Your task to perform on an android device: Open the map Image 0: 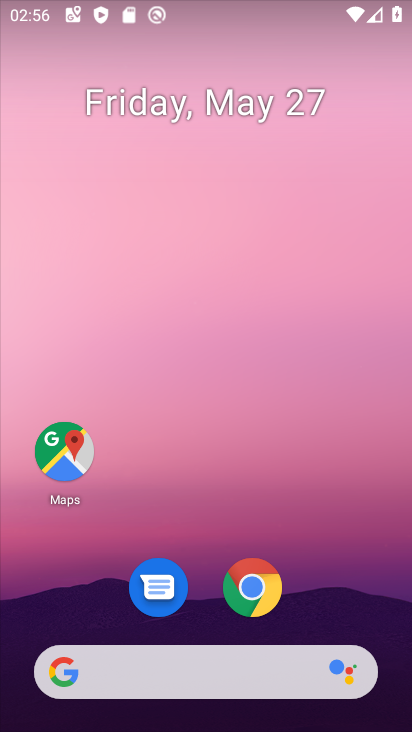
Step 0: click (53, 444)
Your task to perform on an android device: Open the map Image 1: 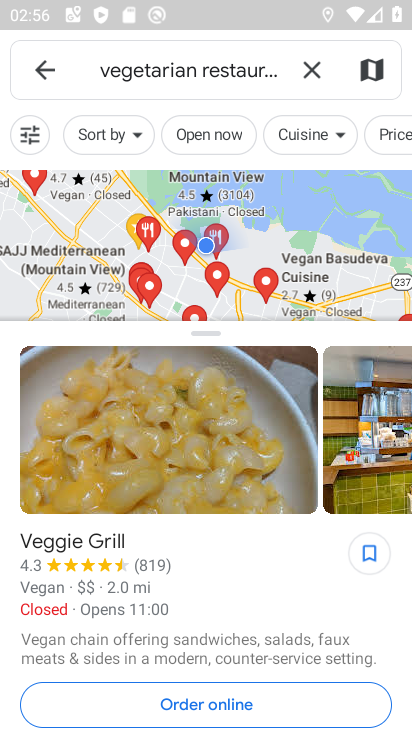
Step 1: click (315, 66)
Your task to perform on an android device: Open the map Image 2: 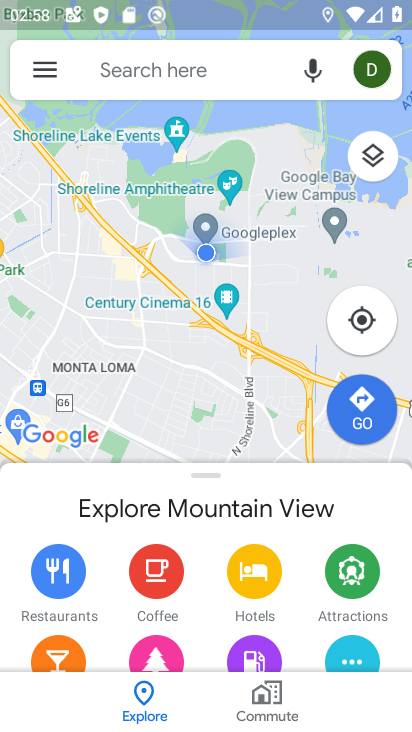
Step 2: task complete